Your task to perform on an android device: empty trash in the gmail app Image 0: 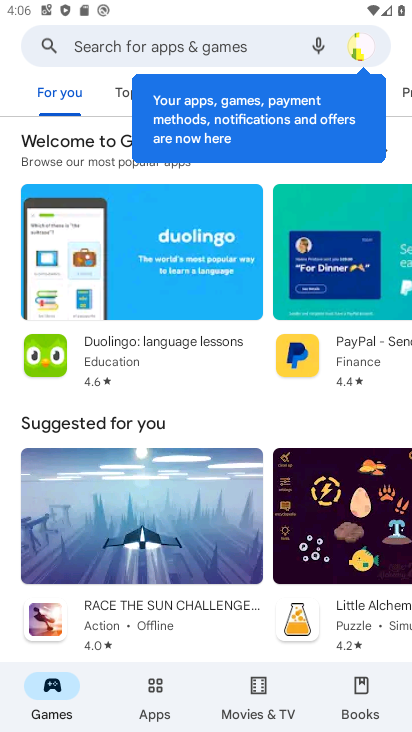
Step 0: press back button
Your task to perform on an android device: empty trash in the gmail app Image 1: 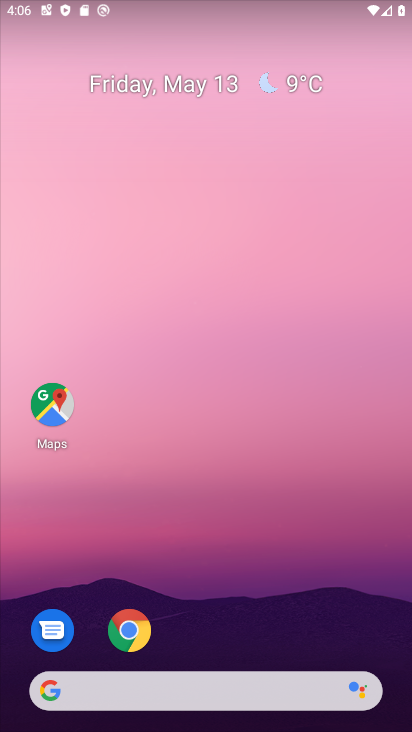
Step 1: drag from (236, 600) to (322, 48)
Your task to perform on an android device: empty trash in the gmail app Image 2: 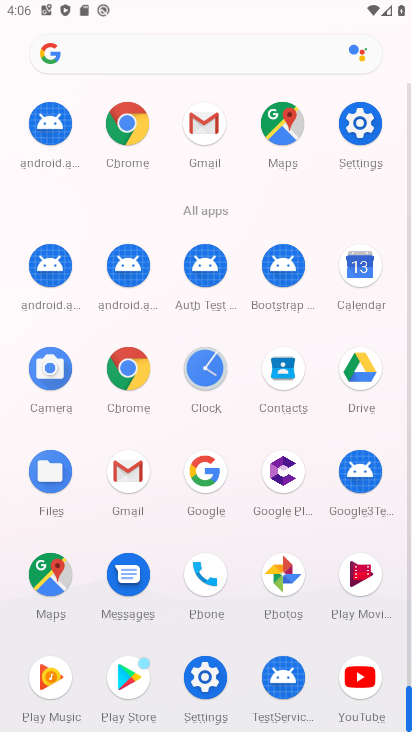
Step 2: drag from (14, 520) to (20, 287)
Your task to perform on an android device: empty trash in the gmail app Image 3: 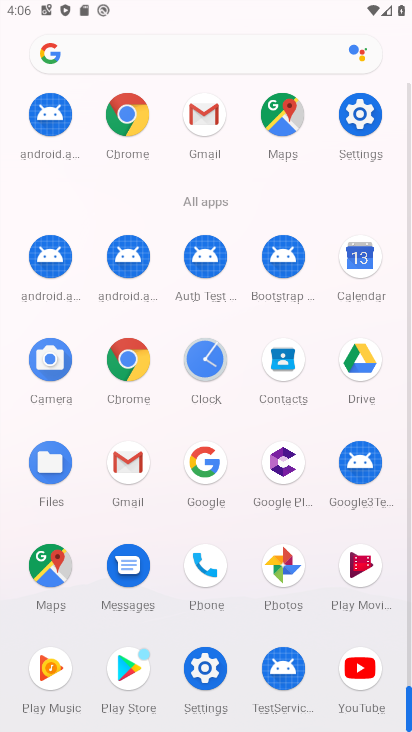
Step 3: click (125, 461)
Your task to perform on an android device: empty trash in the gmail app Image 4: 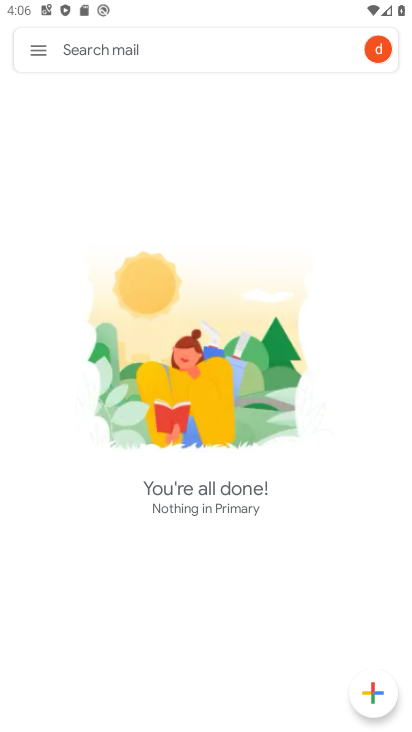
Step 4: click (34, 43)
Your task to perform on an android device: empty trash in the gmail app Image 5: 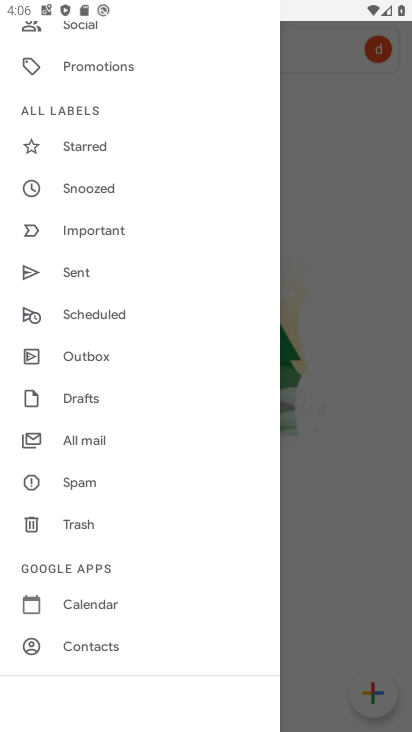
Step 5: click (85, 518)
Your task to perform on an android device: empty trash in the gmail app Image 6: 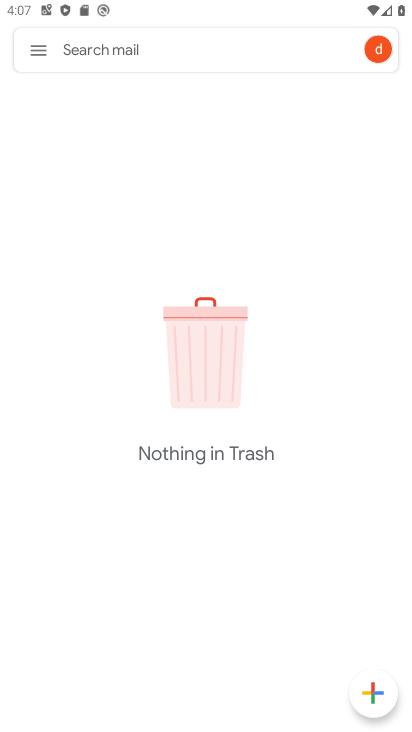
Step 6: task complete